Your task to perform on an android device: turn on airplane mode Image 0: 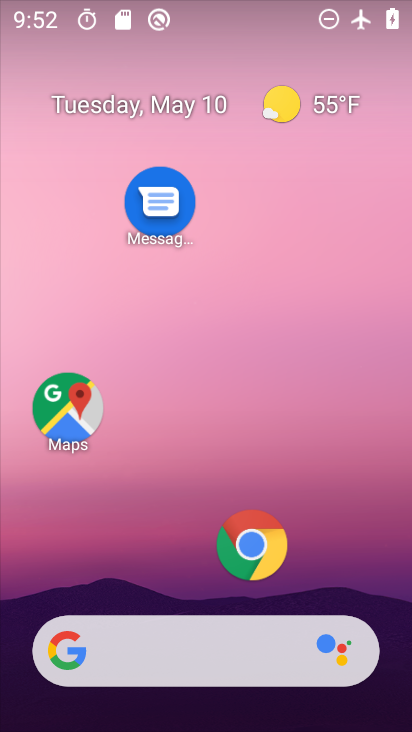
Step 0: drag from (190, 560) to (168, 183)
Your task to perform on an android device: turn on airplane mode Image 1: 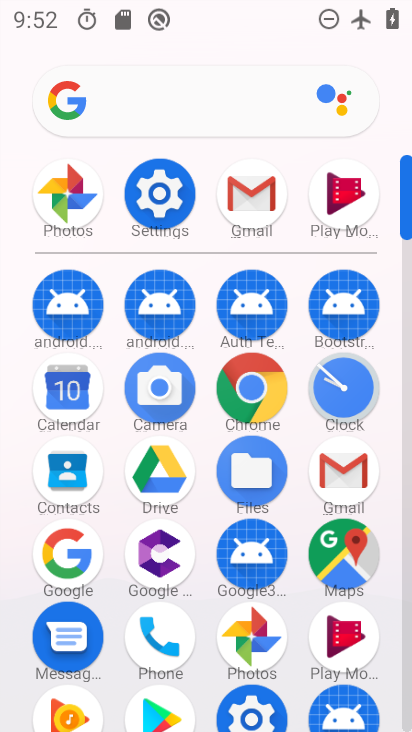
Step 1: click (182, 171)
Your task to perform on an android device: turn on airplane mode Image 2: 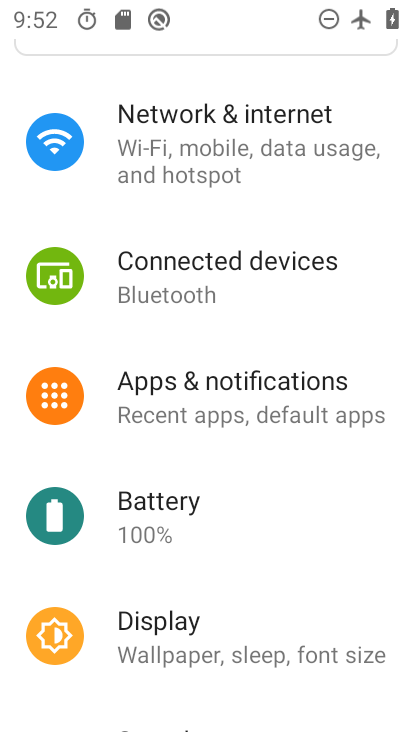
Step 2: drag from (263, 219) to (264, 456)
Your task to perform on an android device: turn on airplane mode Image 3: 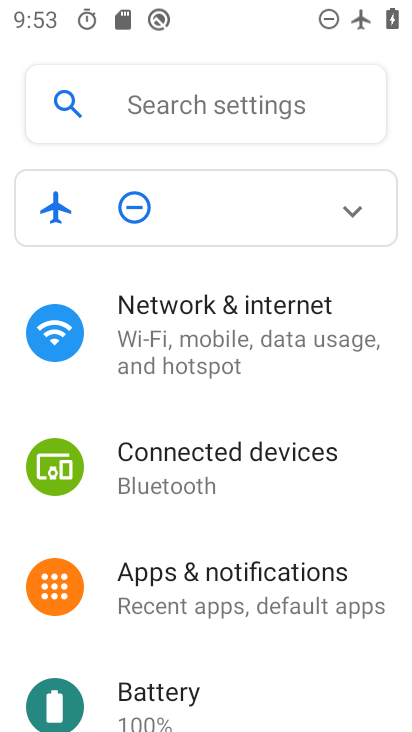
Step 3: click (191, 351)
Your task to perform on an android device: turn on airplane mode Image 4: 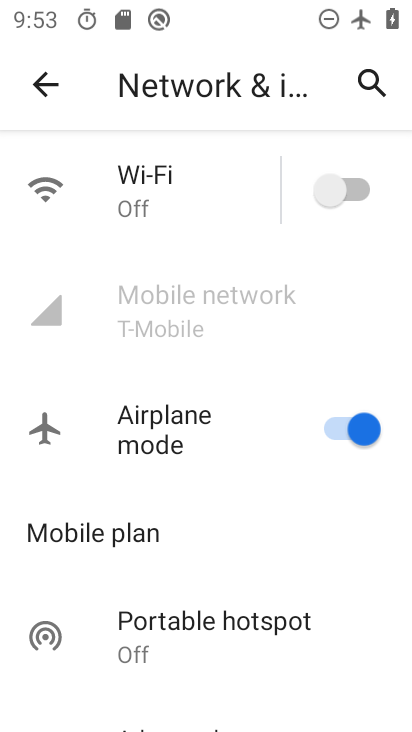
Step 4: task complete